Your task to perform on an android device: Go to Wikipedia Image 0: 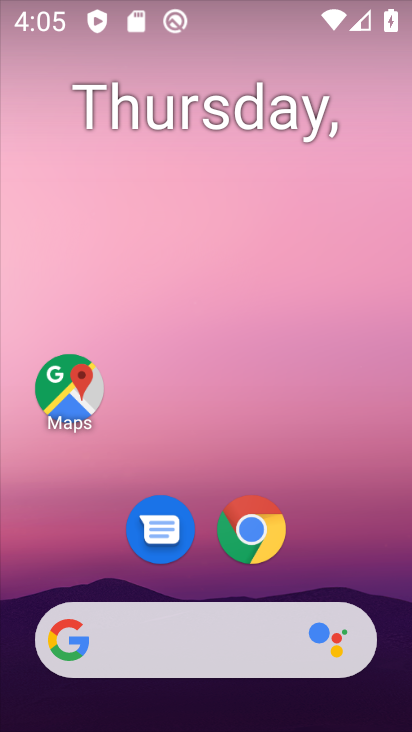
Step 0: click (260, 529)
Your task to perform on an android device: Go to Wikipedia Image 1: 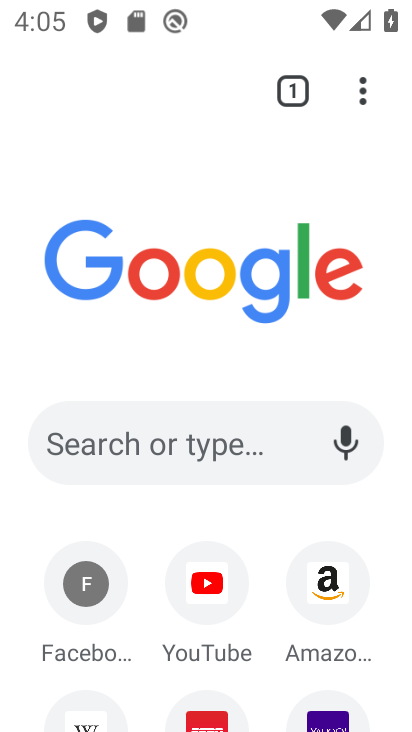
Step 1: click (198, 436)
Your task to perform on an android device: Go to Wikipedia Image 2: 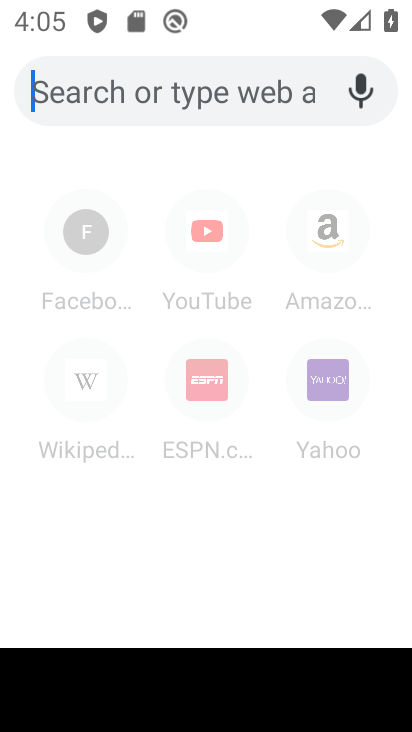
Step 2: type "Wikipedia"
Your task to perform on an android device: Go to Wikipedia Image 3: 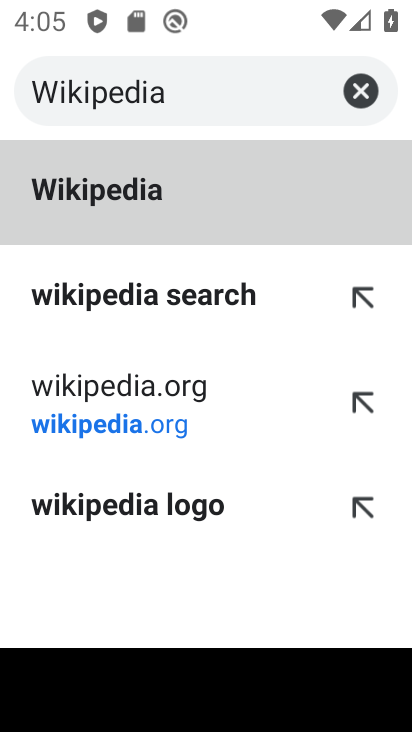
Step 3: click (101, 187)
Your task to perform on an android device: Go to Wikipedia Image 4: 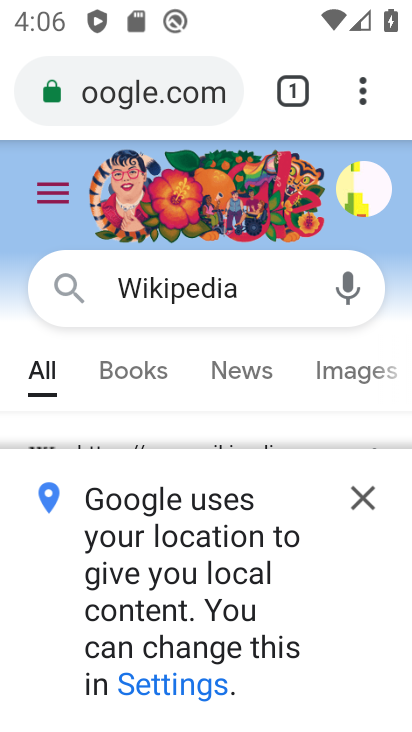
Step 4: click (364, 492)
Your task to perform on an android device: Go to Wikipedia Image 5: 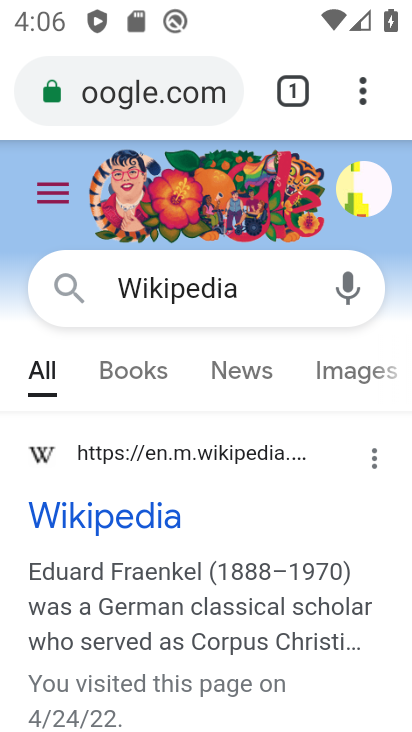
Step 5: click (127, 517)
Your task to perform on an android device: Go to Wikipedia Image 6: 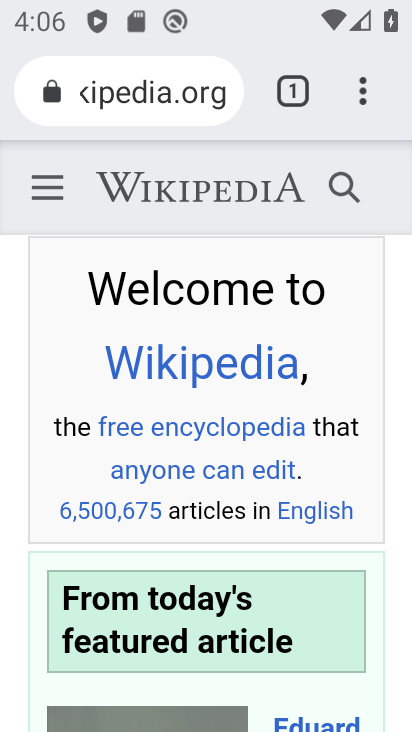
Step 6: task complete